Your task to perform on an android device: Open Wikipedia Image 0: 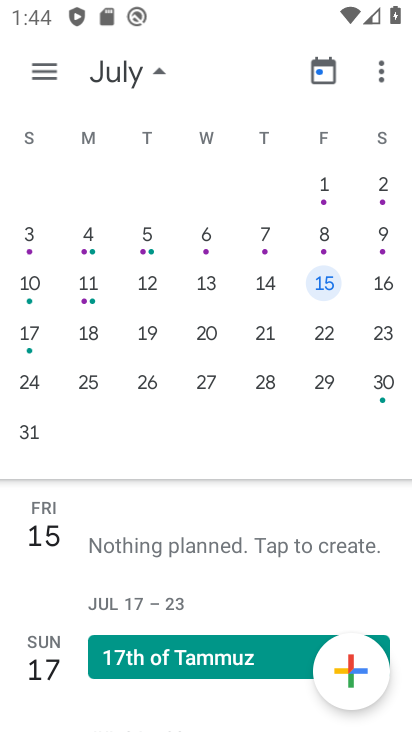
Step 0: drag from (251, 523) to (199, 129)
Your task to perform on an android device: Open Wikipedia Image 1: 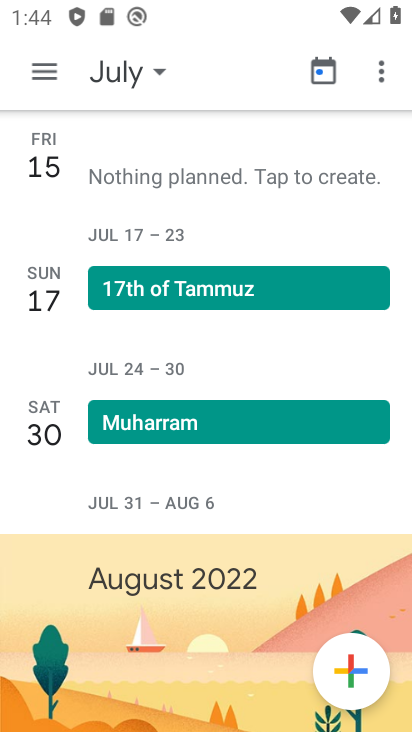
Step 1: drag from (204, 490) to (196, 265)
Your task to perform on an android device: Open Wikipedia Image 2: 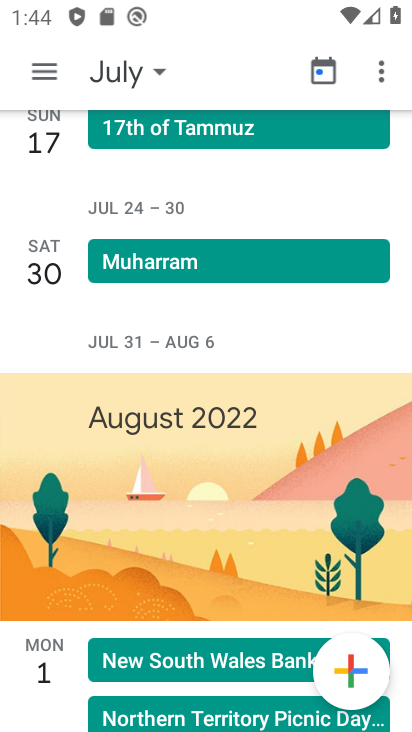
Step 2: drag from (179, 173) to (224, 551)
Your task to perform on an android device: Open Wikipedia Image 3: 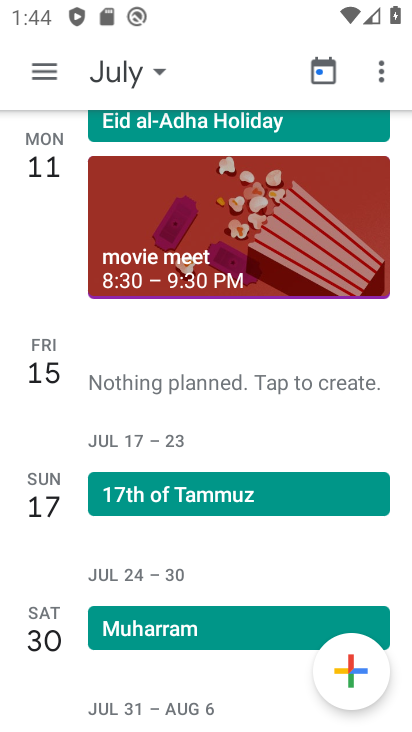
Step 3: press home button
Your task to perform on an android device: Open Wikipedia Image 4: 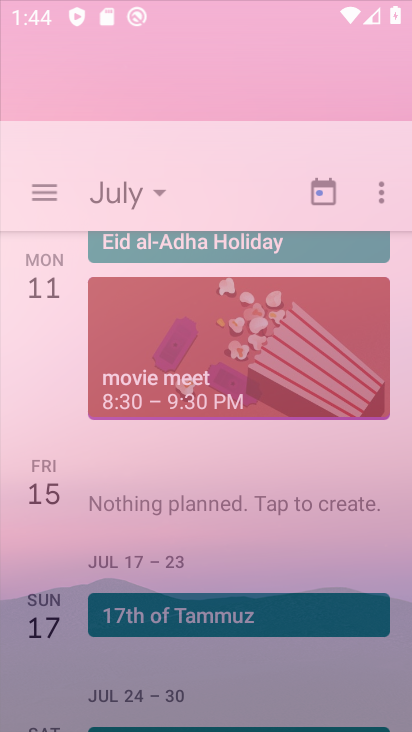
Step 4: drag from (234, 557) to (232, 251)
Your task to perform on an android device: Open Wikipedia Image 5: 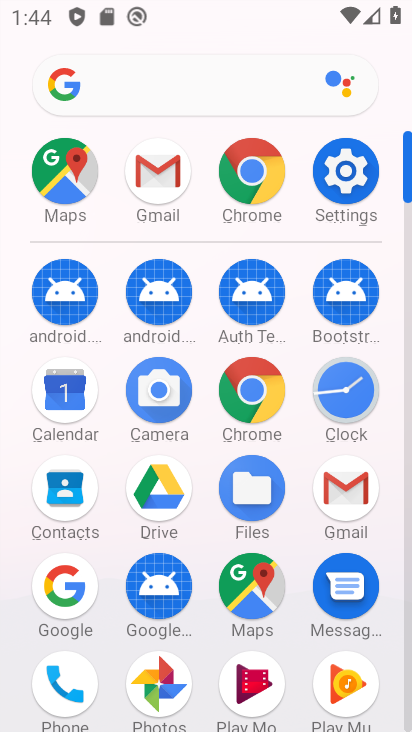
Step 5: click (130, 93)
Your task to perform on an android device: Open Wikipedia Image 6: 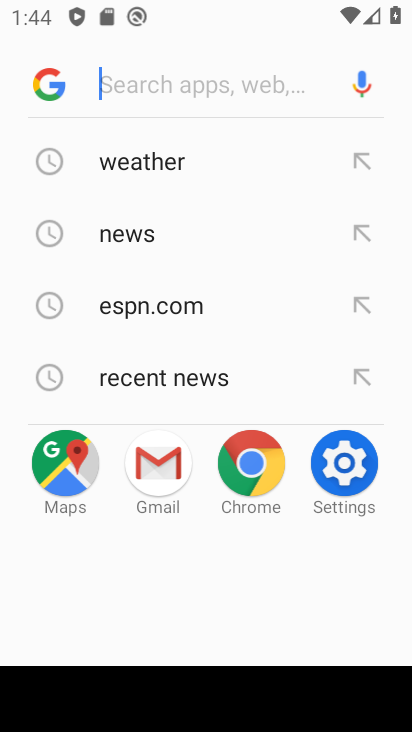
Step 6: type "Wikipedia"
Your task to perform on an android device: Open Wikipedia Image 7: 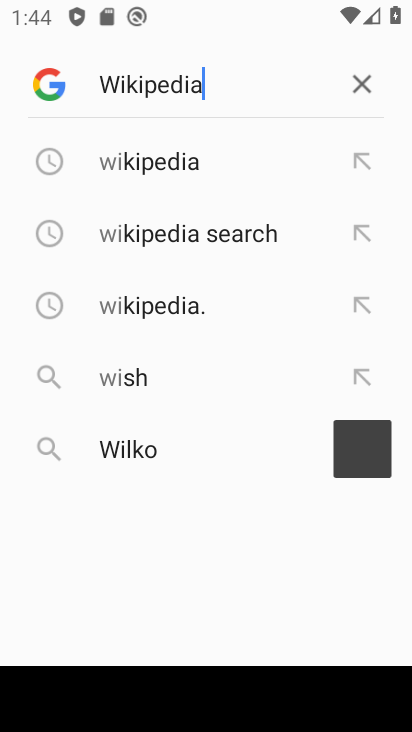
Step 7: type ""
Your task to perform on an android device: Open Wikipedia Image 8: 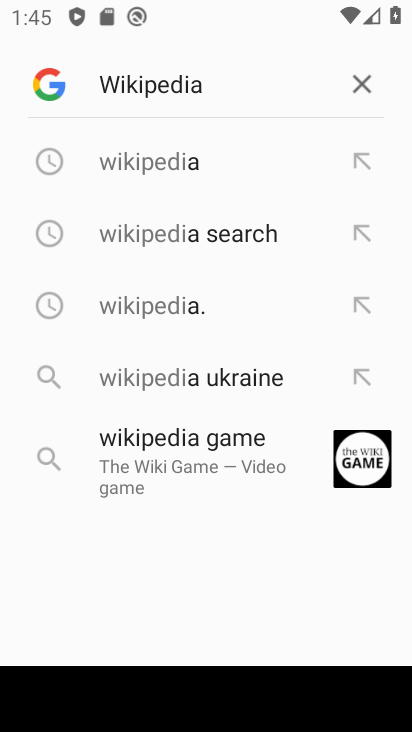
Step 8: click (193, 153)
Your task to perform on an android device: Open Wikipedia Image 9: 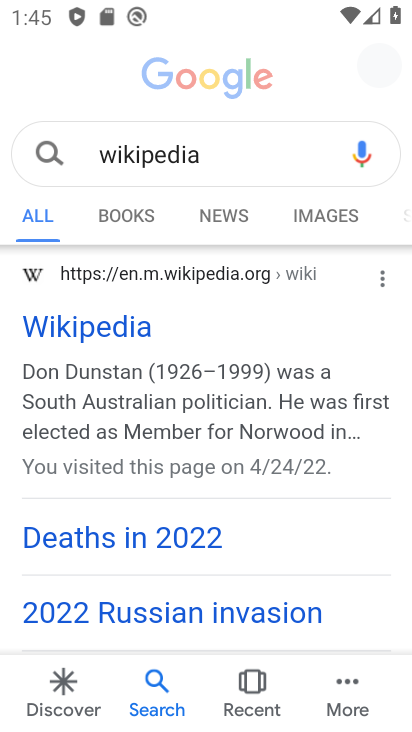
Step 9: drag from (220, 582) to (232, 268)
Your task to perform on an android device: Open Wikipedia Image 10: 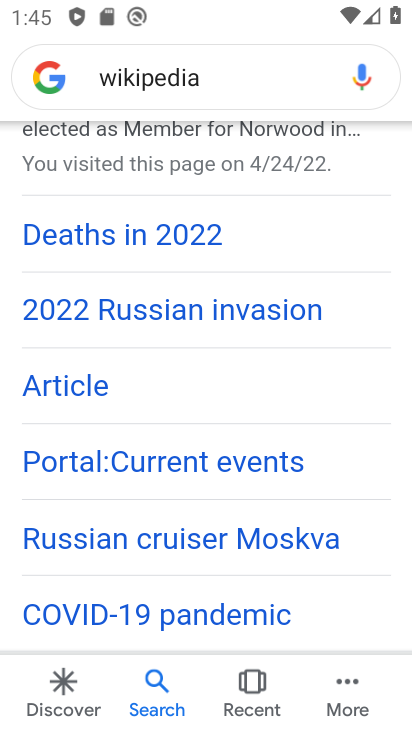
Step 10: drag from (217, 292) to (345, 667)
Your task to perform on an android device: Open Wikipedia Image 11: 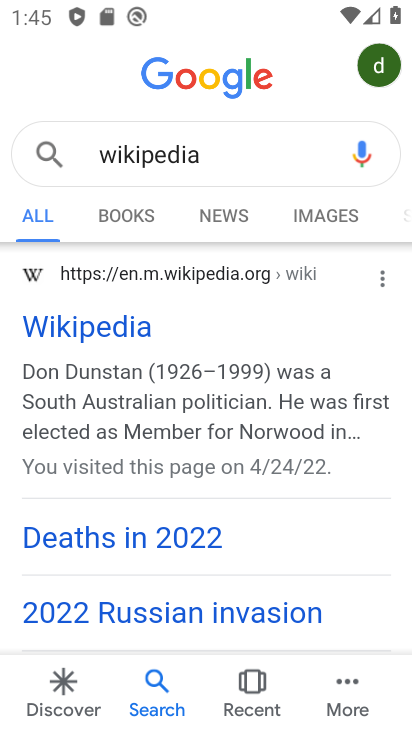
Step 11: click (73, 322)
Your task to perform on an android device: Open Wikipedia Image 12: 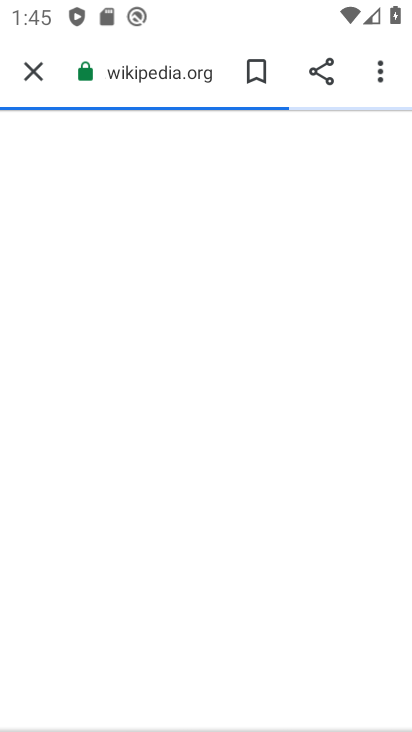
Step 12: task complete